Your task to perform on an android device: Open settings on Google Maps Image 0: 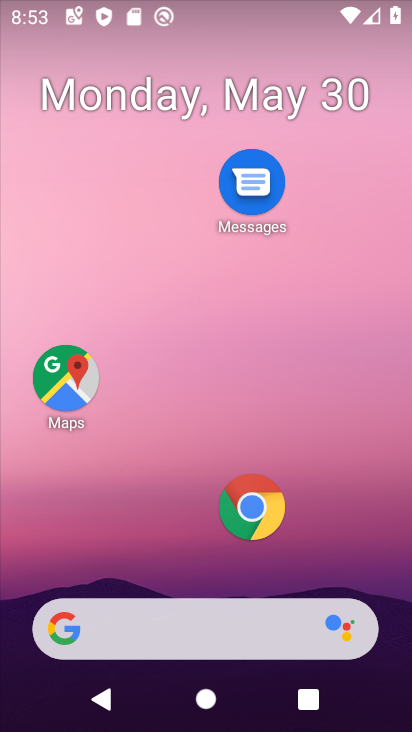
Step 0: drag from (216, 571) to (239, 165)
Your task to perform on an android device: Open settings on Google Maps Image 1: 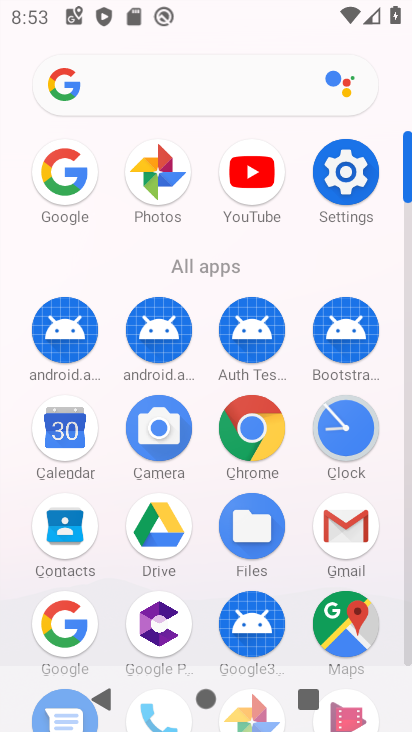
Step 1: click (334, 629)
Your task to perform on an android device: Open settings on Google Maps Image 2: 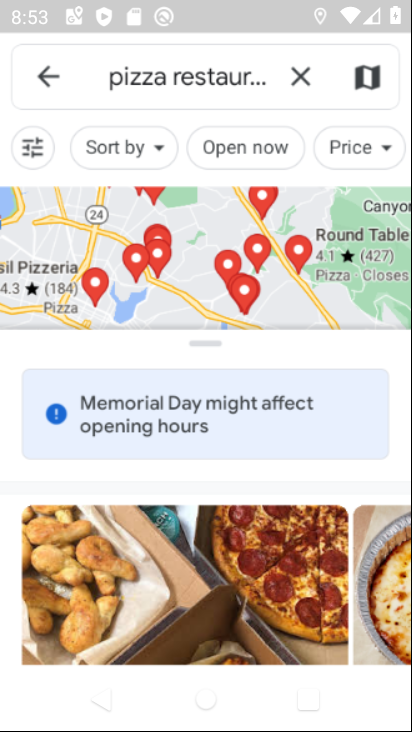
Step 2: click (49, 79)
Your task to perform on an android device: Open settings on Google Maps Image 3: 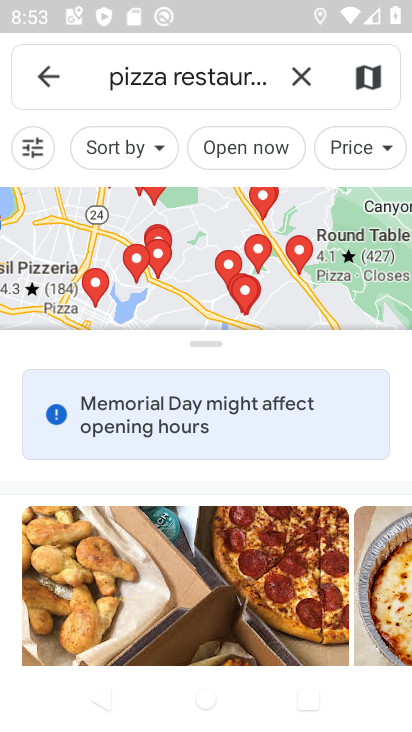
Step 3: click (50, 83)
Your task to perform on an android device: Open settings on Google Maps Image 4: 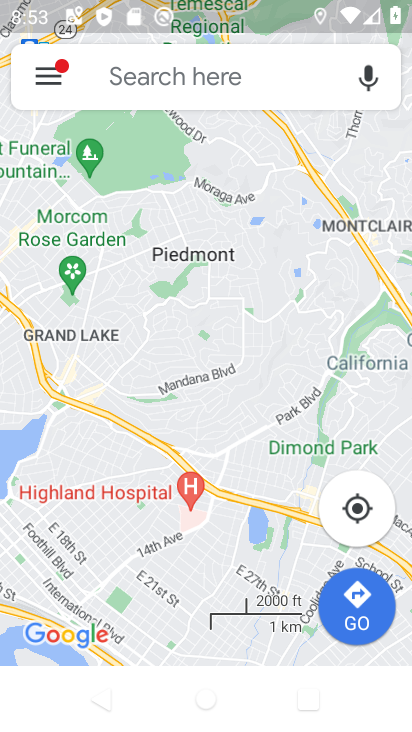
Step 4: click (50, 83)
Your task to perform on an android device: Open settings on Google Maps Image 5: 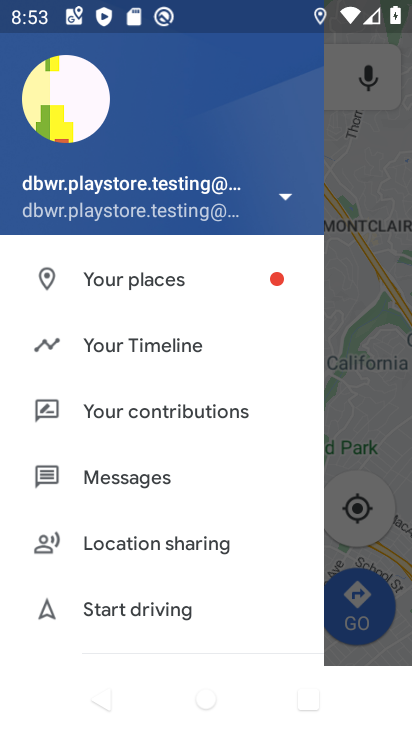
Step 5: drag from (176, 577) to (188, 330)
Your task to perform on an android device: Open settings on Google Maps Image 6: 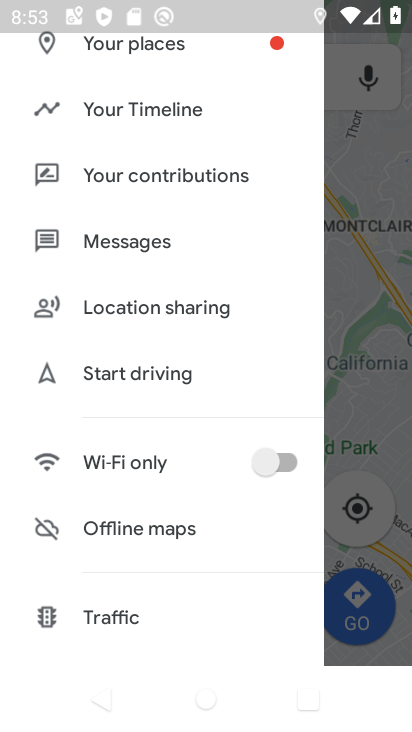
Step 6: drag from (167, 594) to (222, 304)
Your task to perform on an android device: Open settings on Google Maps Image 7: 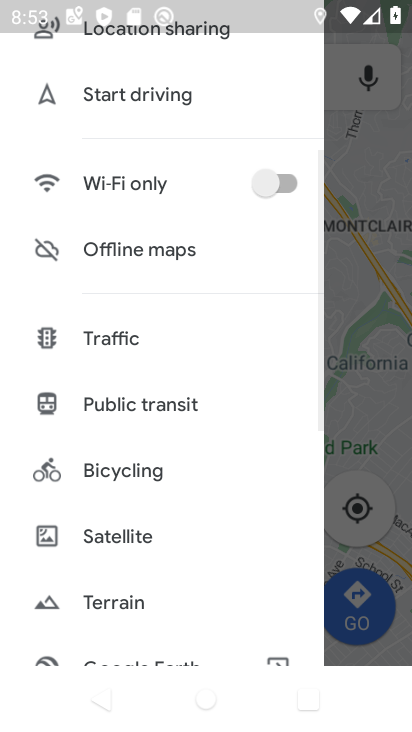
Step 7: drag from (159, 587) to (112, 266)
Your task to perform on an android device: Open settings on Google Maps Image 8: 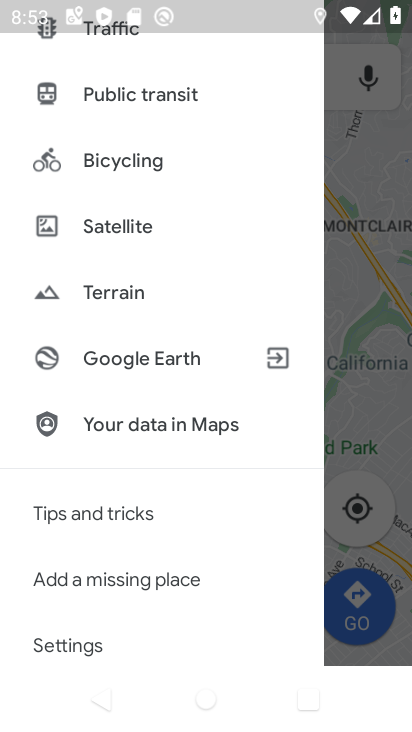
Step 8: click (62, 645)
Your task to perform on an android device: Open settings on Google Maps Image 9: 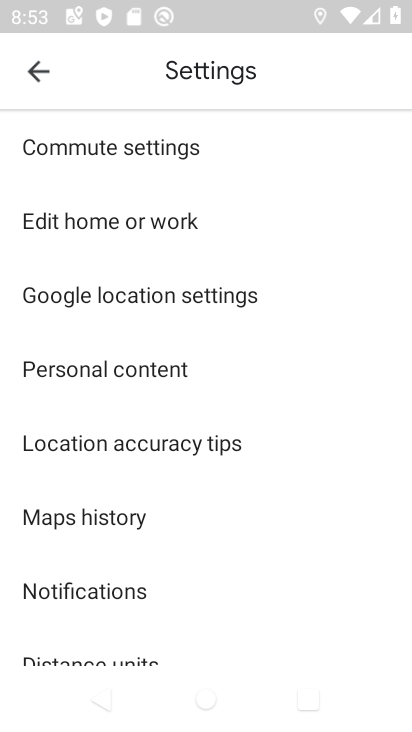
Step 9: task complete